Your task to perform on an android device: Search for sushi restaurants on Maps Image 0: 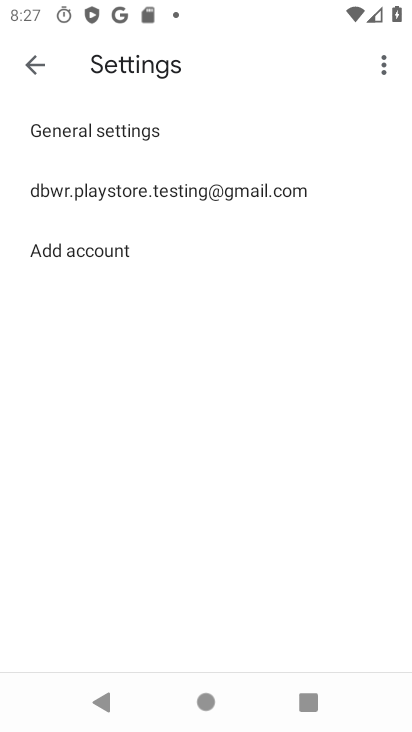
Step 0: press home button
Your task to perform on an android device: Search for sushi restaurants on Maps Image 1: 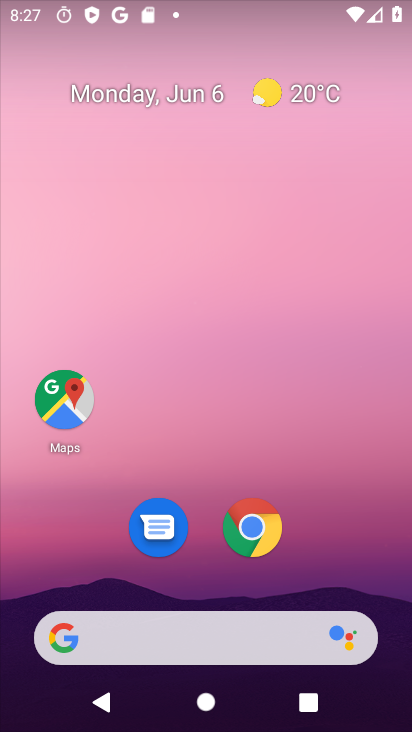
Step 1: drag from (225, 726) to (192, 107)
Your task to perform on an android device: Search for sushi restaurants on Maps Image 2: 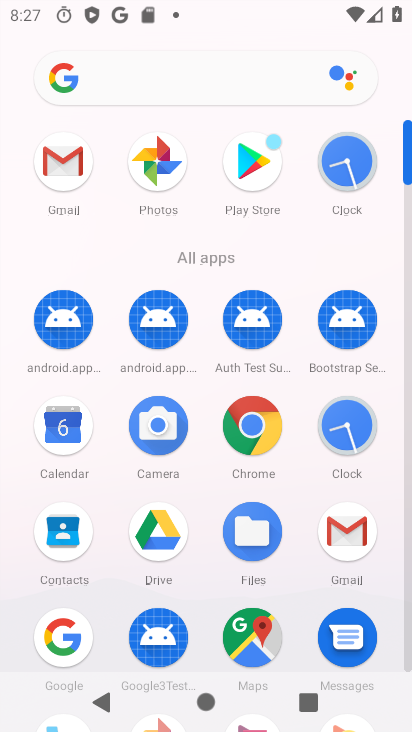
Step 2: click (240, 638)
Your task to perform on an android device: Search for sushi restaurants on Maps Image 3: 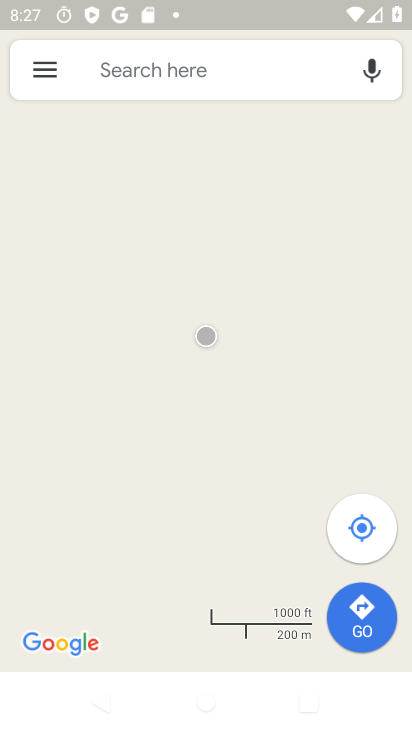
Step 3: click (134, 64)
Your task to perform on an android device: Search for sushi restaurants on Maps Image 4: 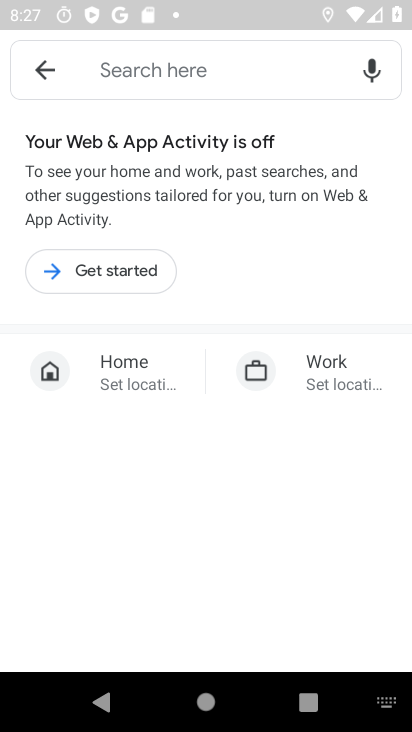
Step 4: type "sushi restaurants"
Your task to perform on an android device: Search for sushi restaurants on Maps Image 5: 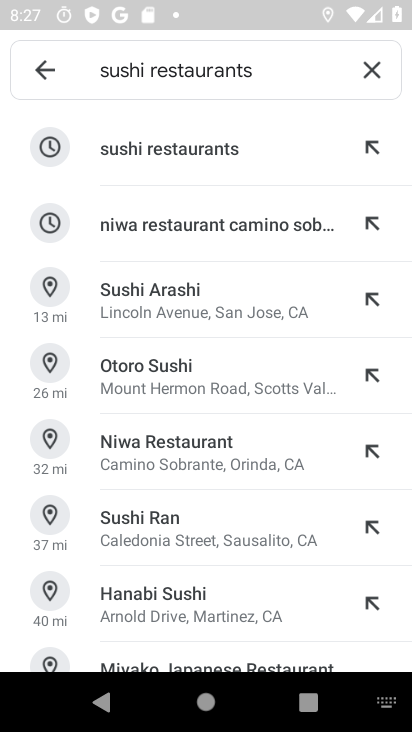
Step 5: click (208, 152)
Your task to perform on an android device: Search for sushi restaurants on Maps Image 6: 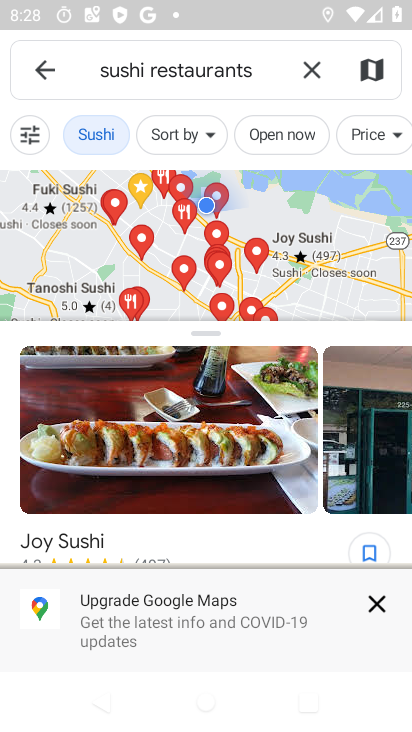
Step 6: task complete